Your task to perform on an android device: clear history in the chrome app Image 0: 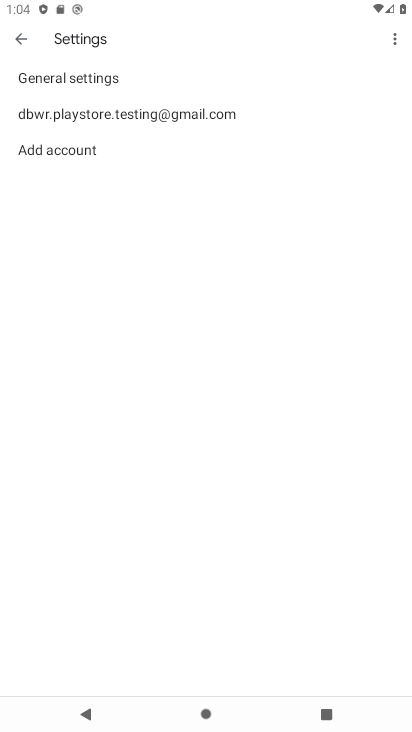
Step 0: drag from (302, 609) to (309, 345)
Your task to perform on an android device: clear history in the chrome app Image 1: 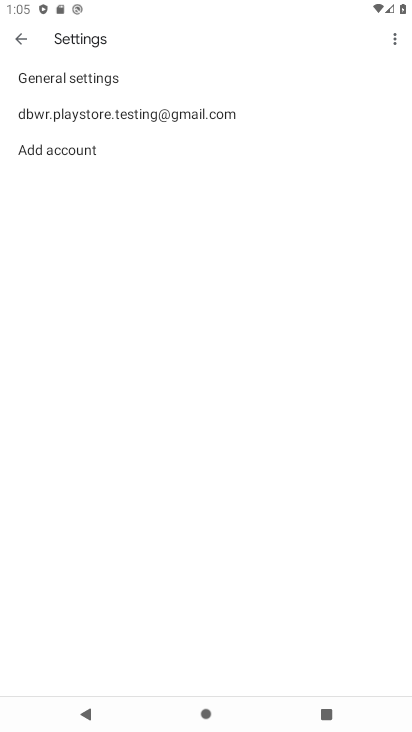
Step 1: press home button
Your task to perform on an android device: clear history in the chrome app Image 2: 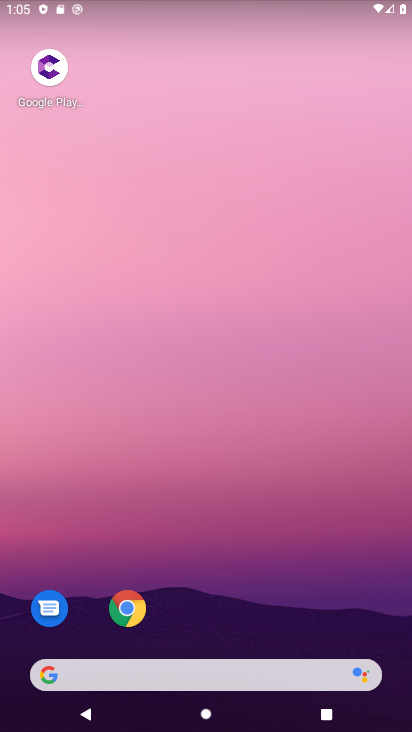
Step 2: drag from (294, 459) to (315, 148)
Your task to perform on an android device: clear history in the chrome app Image 3: 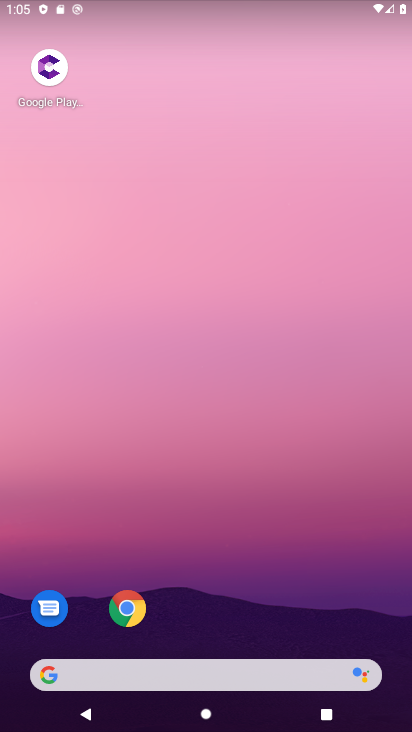
Step 3: click (121, 621)
Your task to perform on an android device: clear history in the chrome app Image 4: 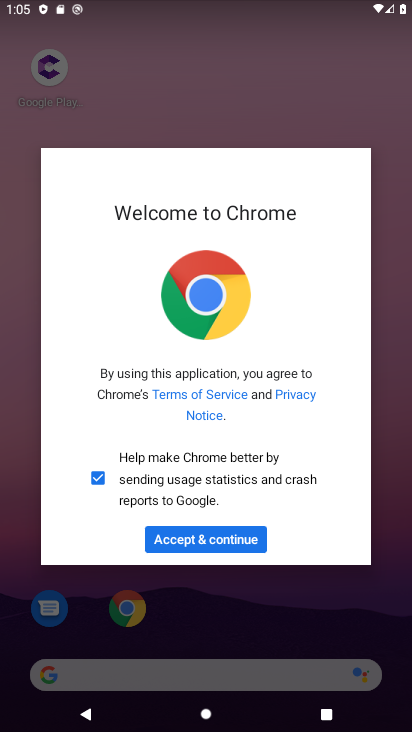
Step 4: click (229, 537)
Your task to perform on an android device: clear history in the chrome app Image 5: 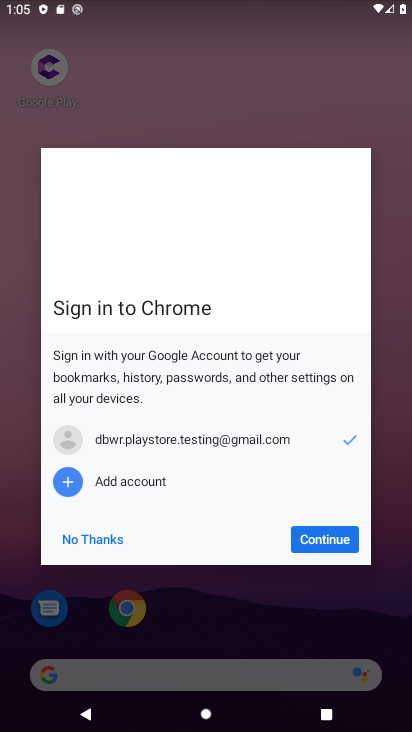
Step 5: click (303, 543)
Your task to perform on an android device: clear history in the chrome app Image 6: 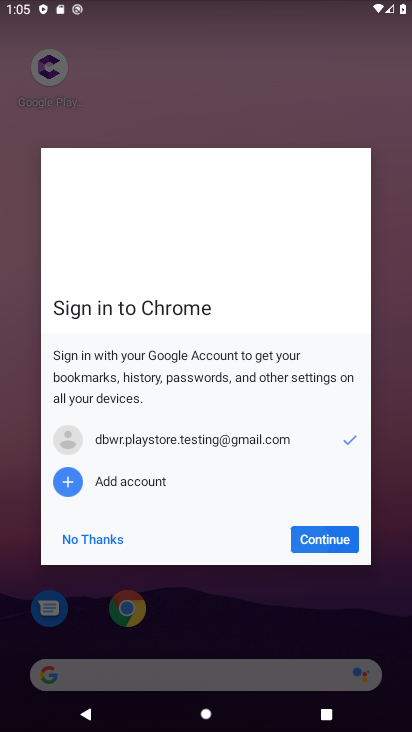
Step 6: click (303, 543)
Your task to perform on an android device: clear history in the chrome app Image 7: 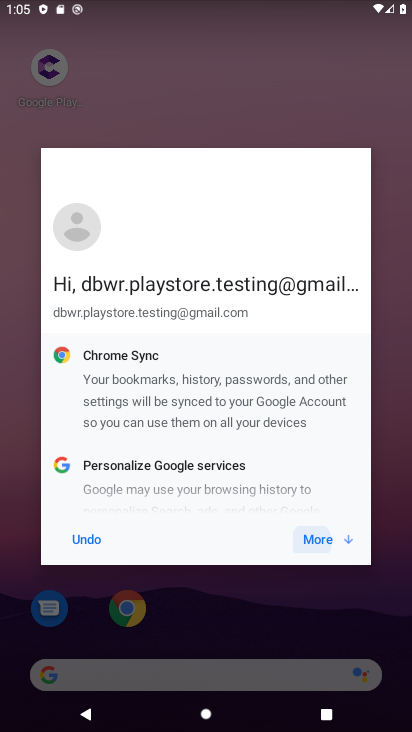
Step 7: click (303, 543)
Your task to perform on an android device: clear history in the chrome app Image 8: 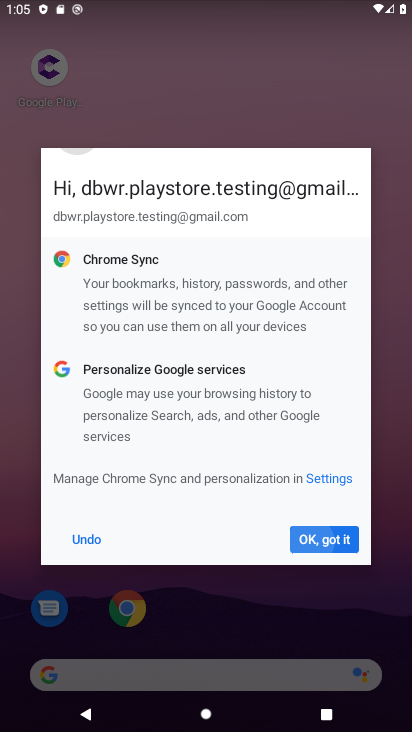
Step 8: click (303, 543)
Your task to perform on an android device: clear history in the chrome app Image 9: 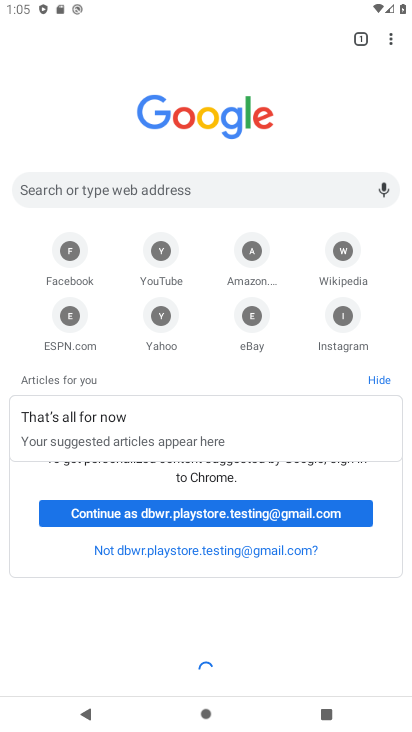
Step 9: task complete